Your task to perform on an android device: Open the stopwatch Image 0: 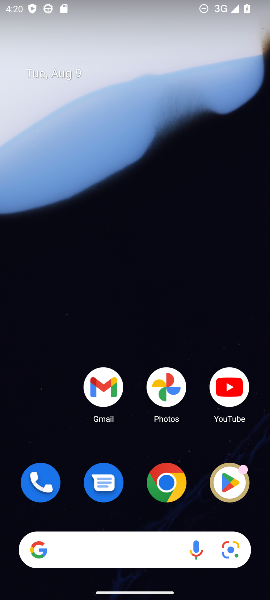
Step 0: drag from (141, 446) to (132, 95)
Your task to perform on an android device: Open the stopwatch Image 1: 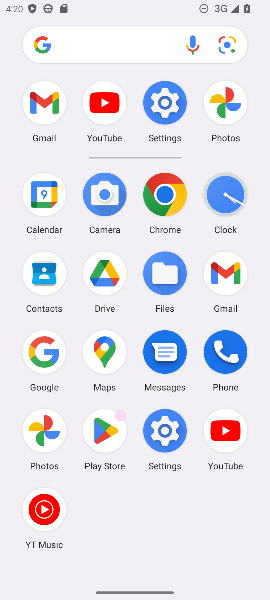
Step 1: click (236, 202)
Your task to perform on an android device: Open the stopwatch Image 2: 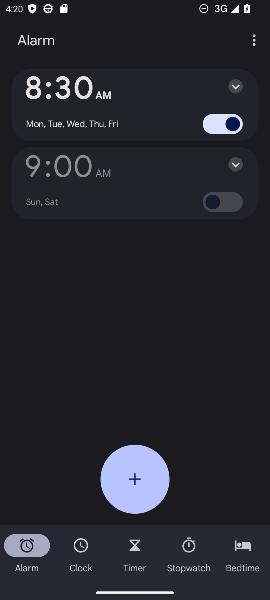
Step 2: click (187, 555)
Your task to perform on an android device: Open the stopwatch Image 3: 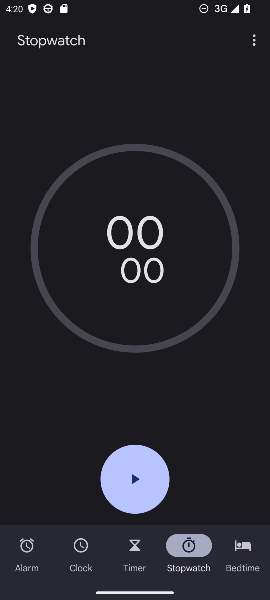
Step 3: task complete